Your task to perform on an android device: What's the weather today? Image 0: 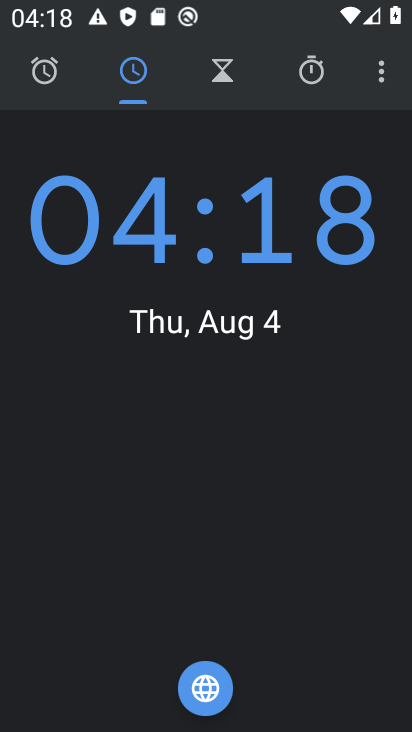
Step 0: press back button
Your task to perform on an android device: What's the weather today? Image 1: 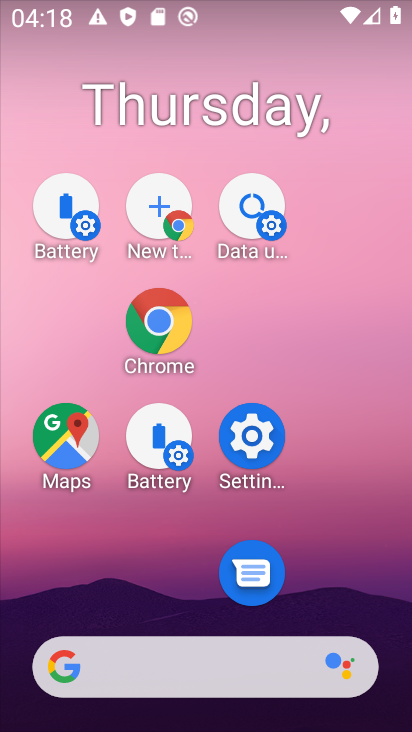
Step 1: drag from (225, 419) to (207, 161)
Your task to perform on an android device: What's the weather today? Image 2: 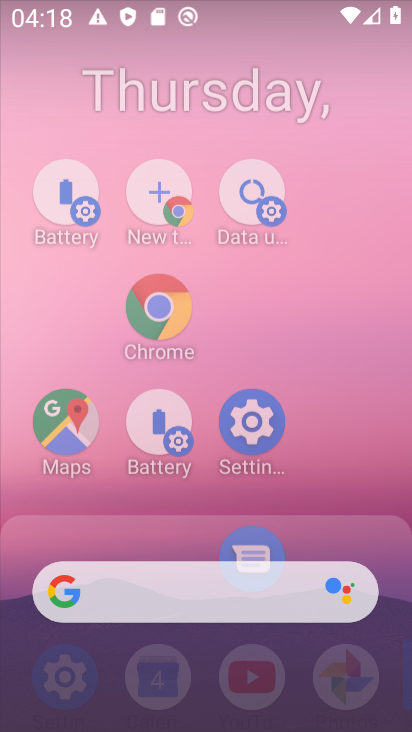
Step 2: drag from (222, 460) to (200, 200)
Your task to perform on an android device: What's the weather today? Image 3: 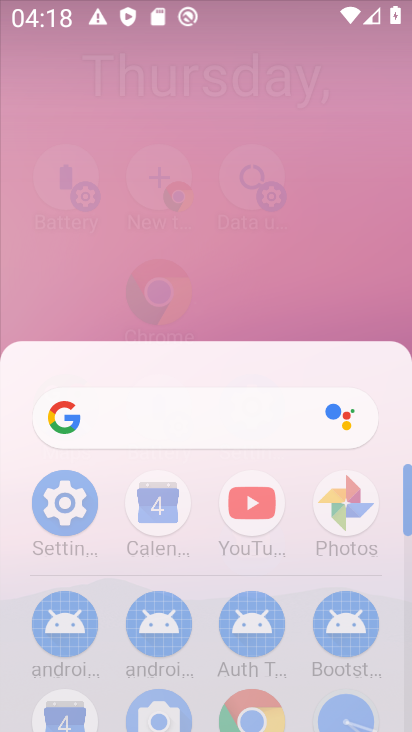
Step 3: drag from (159, 450) to (115, 148)
Your task to perform on an android device: What's the weather today? Image 4: 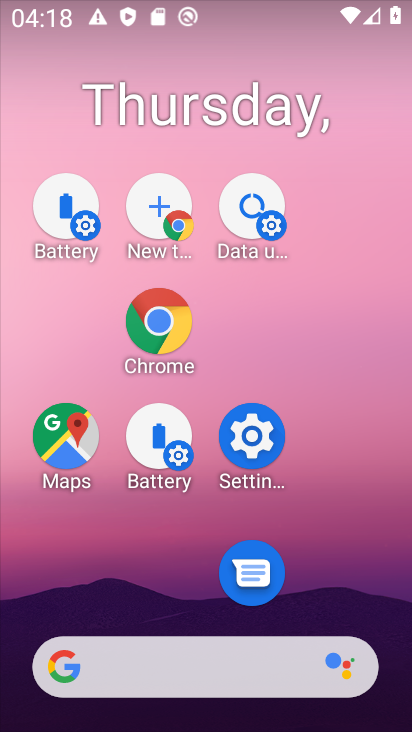
Step 4: drag from (160, 544) to (98, 160)
Your task to perform on an android device: What's the weather today? Image 5: 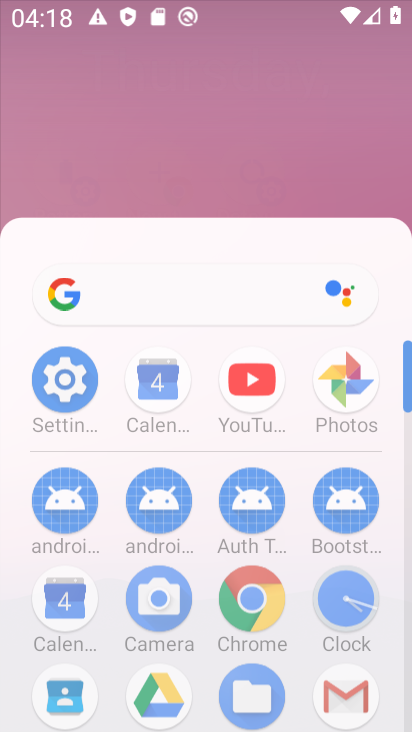
Step 5: drag from (224, 546) to (214, 40)
Your task to perform on an android device: What's the weather today? Image 6: 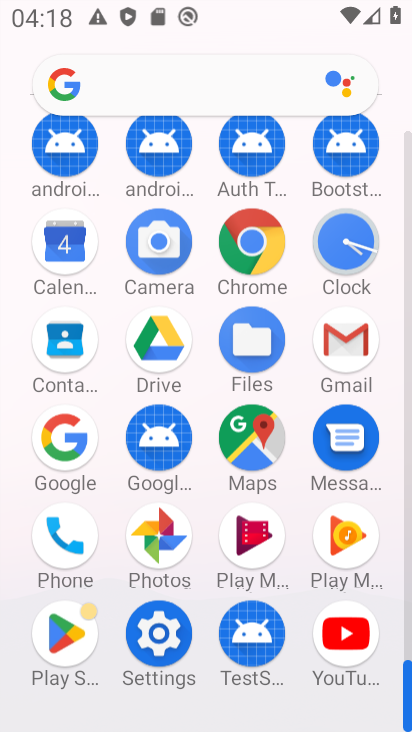
Step 6: drag from (179, 359) to (160, 3)
Your task to perform on an android device: What's the weather today? Image 7: 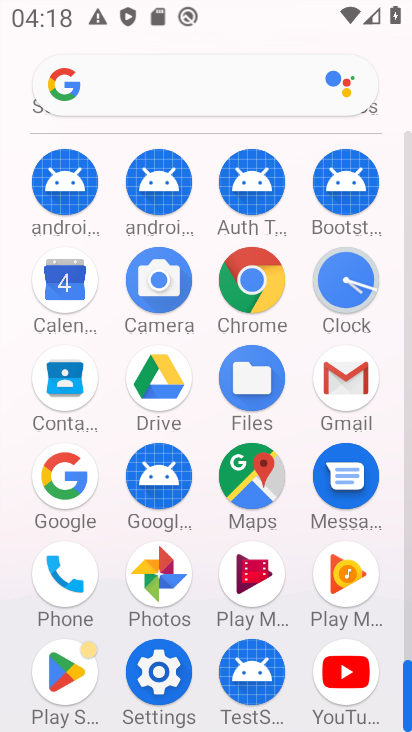
Step 7: click (246, 283)
Your task to perform on an android device: What's the weather today? Image 8: 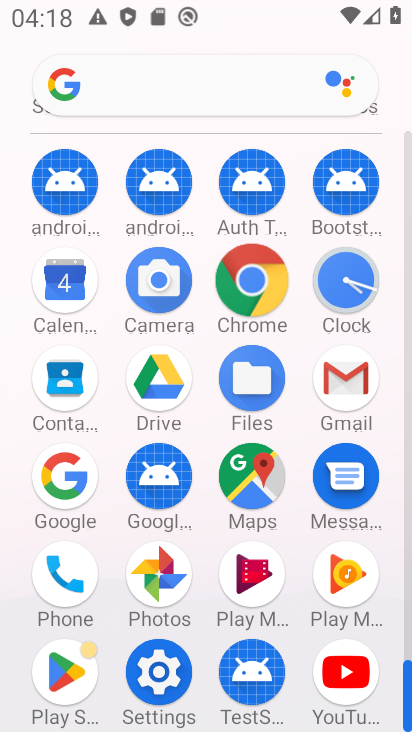
Step 8: click (248, 285)
Your task to perform on an android device: What's the weather today? Image 9: 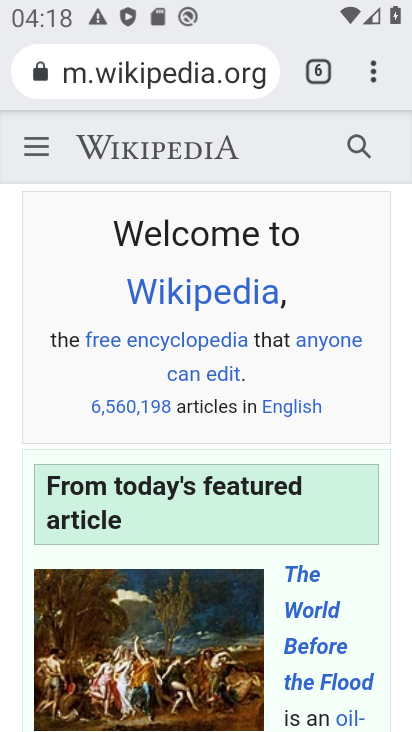
Step 9: click (360, 74)
Your task to perform on an android device: What's the weather today? Image 10: 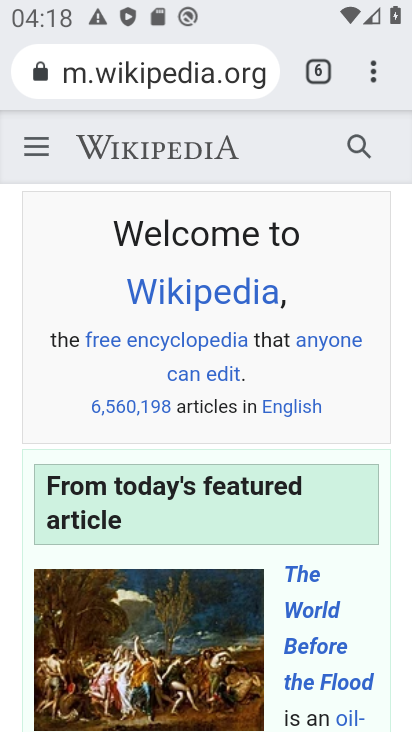
Step 10: drag from (372, 85) to (123, 133)
Your task to perform on an android device: What's the weather today? Image 11: 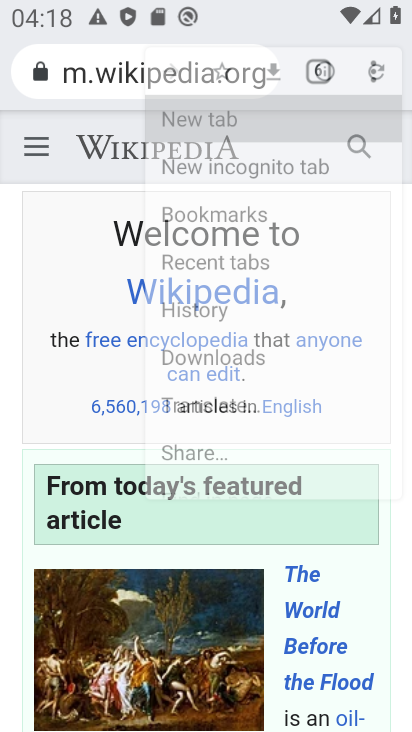
Step 11: click (124, 134)
Your task to perform on an android device: What's the weather today? Image 12: 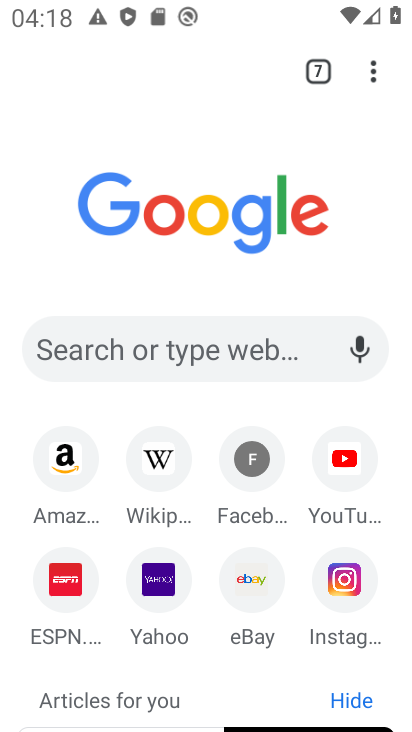
Step 12: click (122, 349)
Your task to perform on an android device: What's the weather today? Image 13: 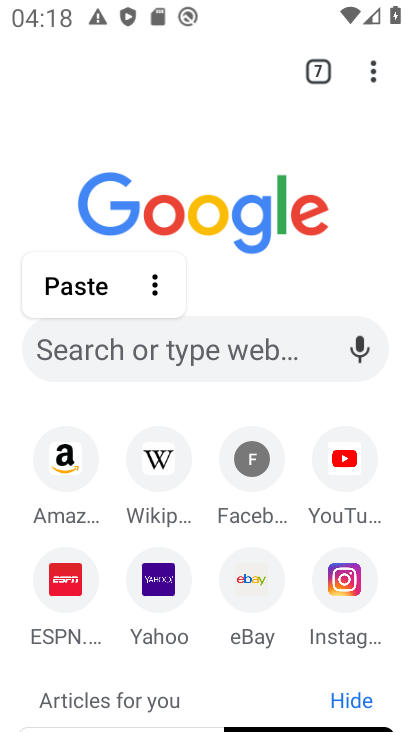
Step 13: click (61, 347)
Your task to perform on an android device: What's the weather today? Image 14: 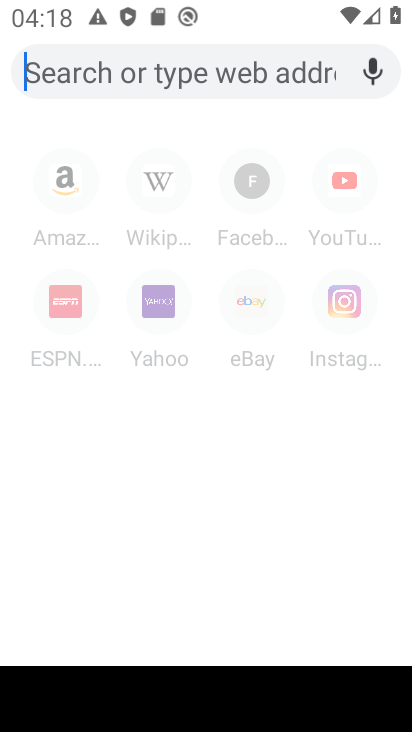
Step 14: type "weather"
Your task to perform on an android device: What's the weather today? Image 15: 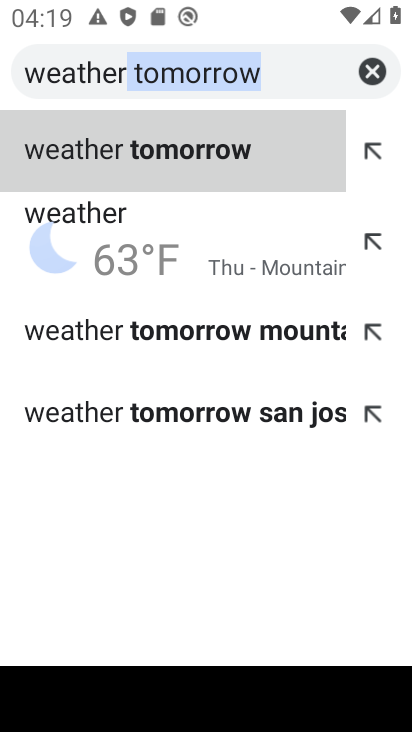
Step 15: click (164, 137)
Your task to perform on an android device: What's the weather today? Image 16: 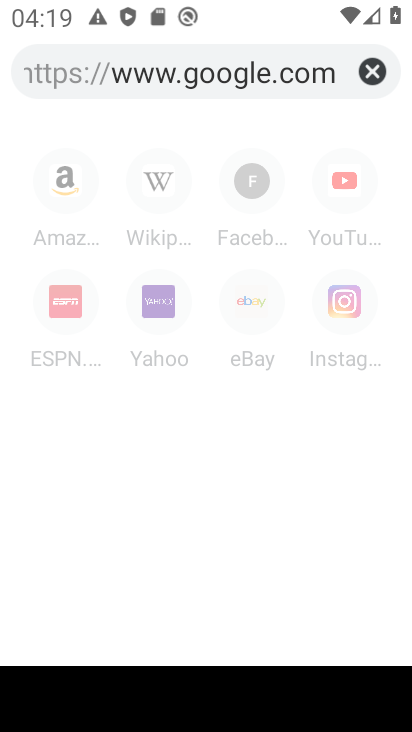
Step 16: click (158, 146)
Your task to perform on an android device: What's the weather today? Image 17: 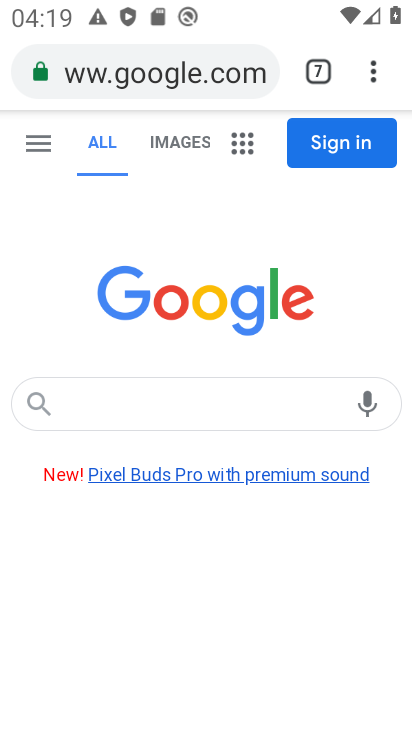
Step 17: task complete